Your task to perform on an android device: Open the stopwatch Image 0: 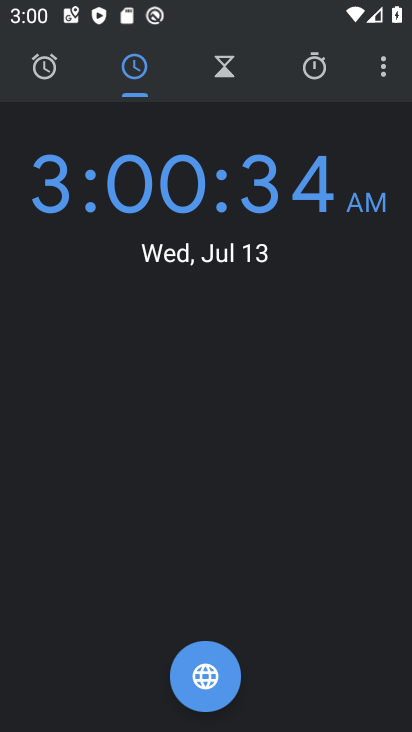
Step 0: press home button
Your task to perform on an android device: Open the stopwatch Image 1: 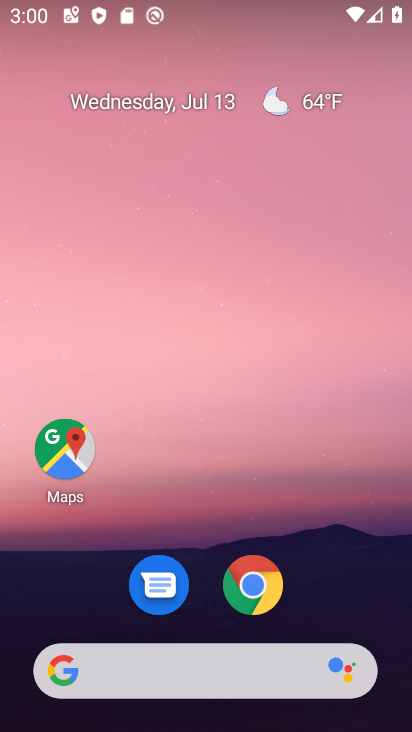
Step 1: drag from (213, 652) to (328, 188)
Your task to perform on an android device: Open the stopwatch Image 2: 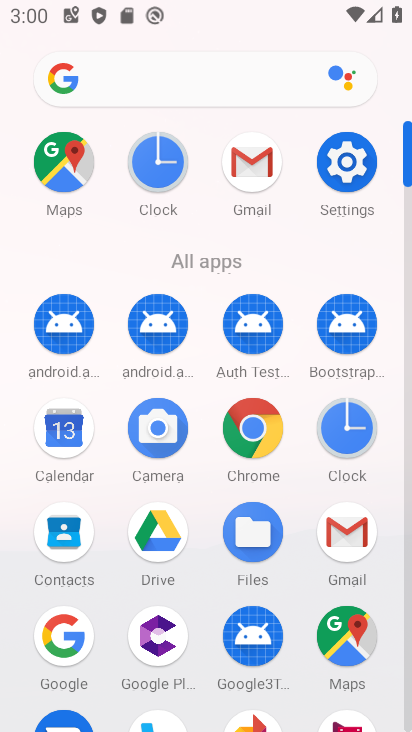
Step 2: click (158, 174)
Your task to perform on an android device: Open the stopwatch Image 3: 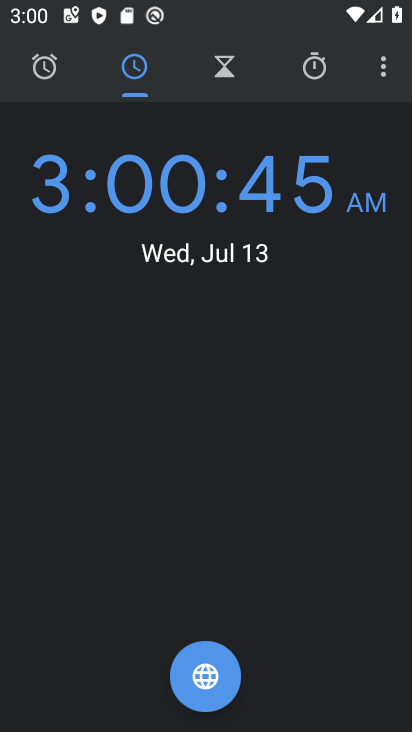
Step 3: click (313, 81)
Your task to perform on an android device: Open the stopwatch Image 4: 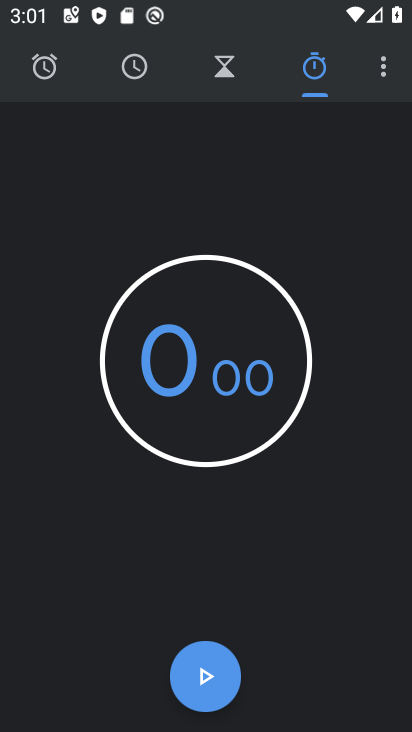
Step 4: task complete